Your task to perform on an android device: Open Android settings Image 0: 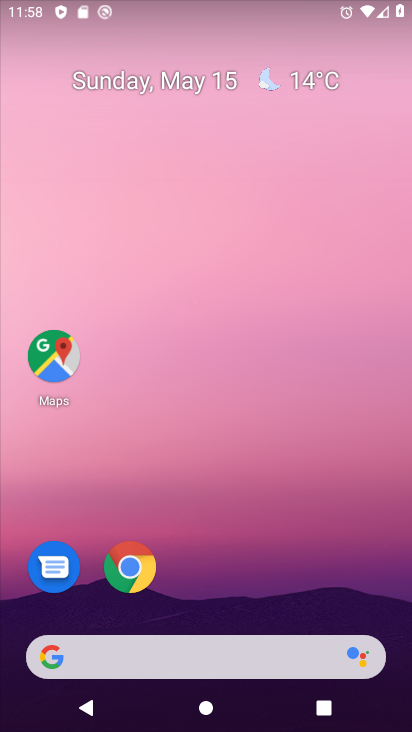
Step 0: drag from (245, 590) to (306, 83)
Your task to perform on an android device: Open Android settings Image 1: 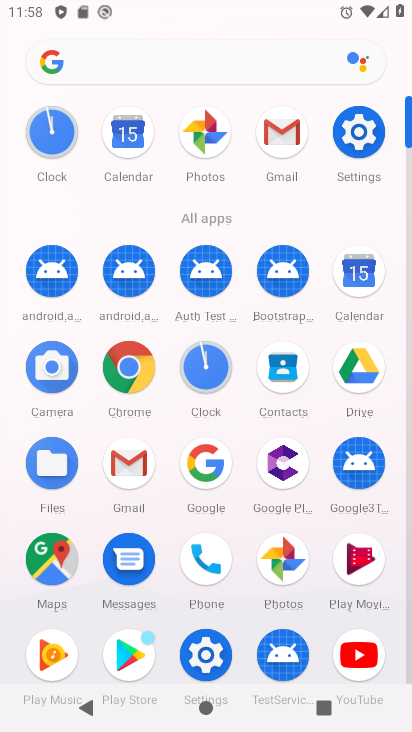
Step 1: click (206, 654)
Your task to perform on an android device: Open Android settings Image 2: 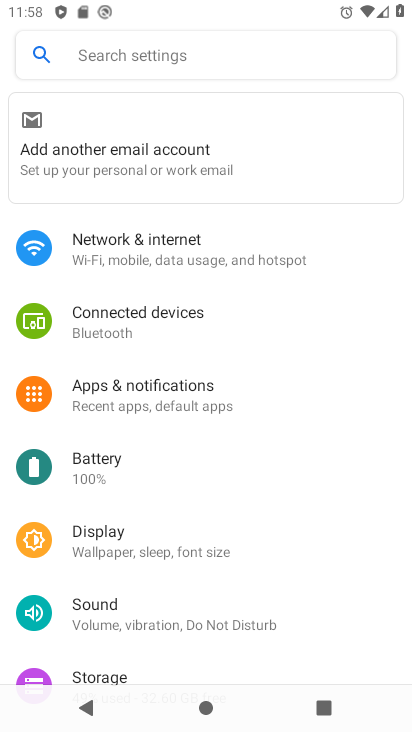
Step 2: drag from (161, 613) to (188, 265)
Your task to perform on an android device: Open Android settings Image 3: 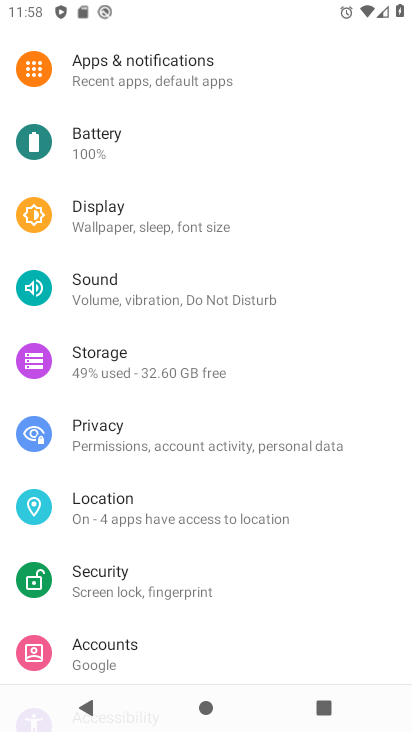
Step 3: drag from (109, 583) to (147, 310)
Your task to perform on an android device: Open Android settings Image 4: 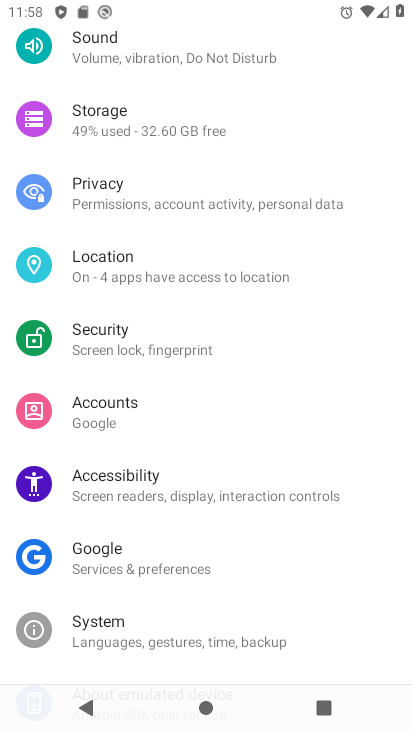
Step 4: click (138, 621)
Your task to perform on an android device: Open Android settings Image 5: 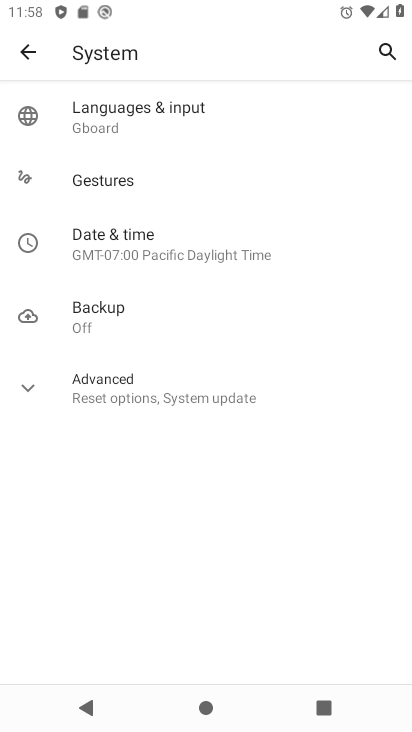
Step 5: task complete